Your task to perform on an android device: read, delete, or share a saved page in the chrome app Image 0: 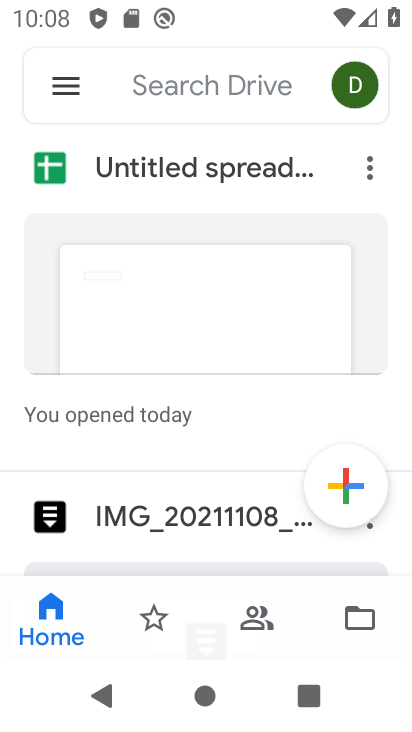
Step 0: press back button
Your task to perform on an android device: read, delete, or share a saved page in the chrome app Image 1: 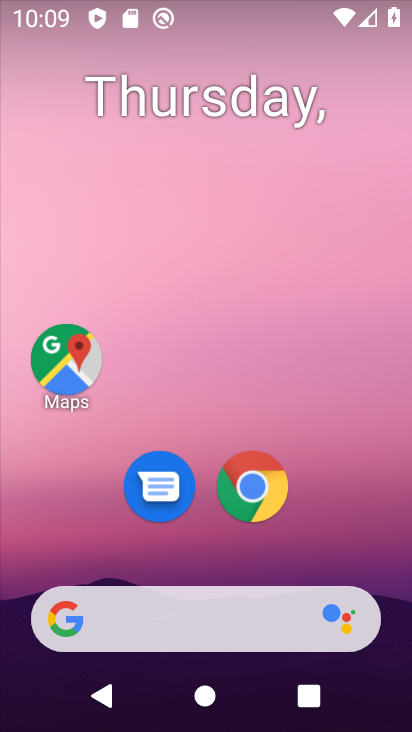
Step 1: click (241, 482)
Your task to perform on an android device: read, delete, or share a saved page in the chrome app Image 2: 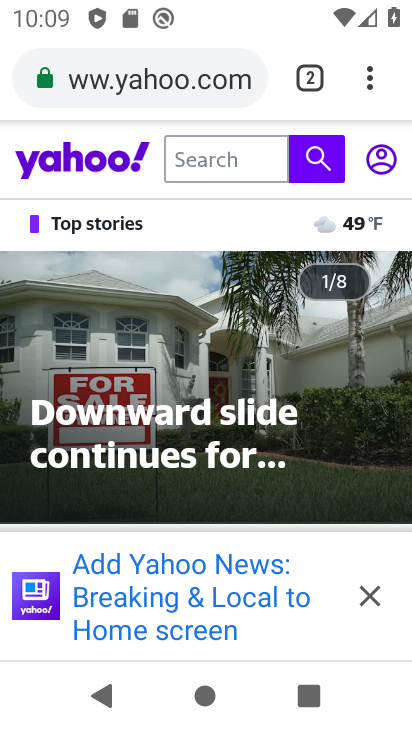
Step 2: drag from (352, 80) to (143, 516)
Your task to perform on an android device: read, delete, or share a saved page in the chrome app Image 3: 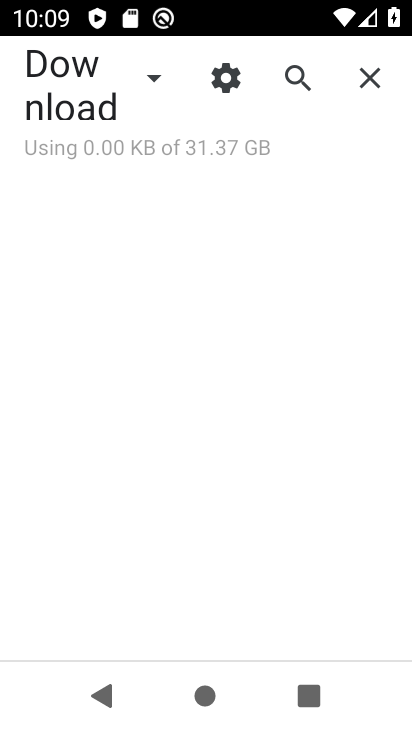
Step 3: click (144, 70)
Your task to perform on an android device: read, delete, or share a saved page in the chrome app Image 4: 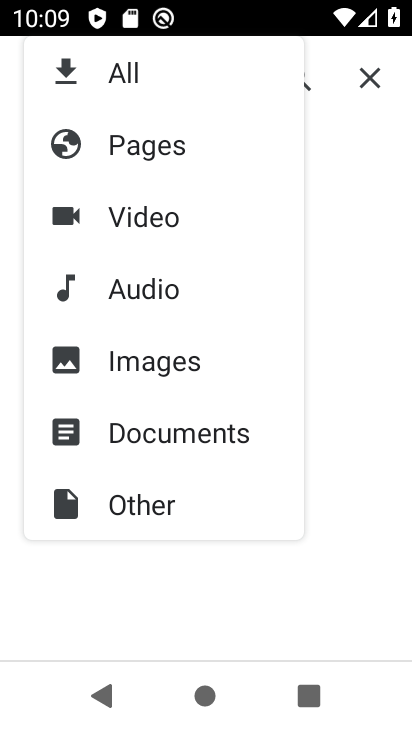
Step 4: click (142, 142)
Your task to perform on an android device: read, delete, or share a saved page in the chrome app Image 5: 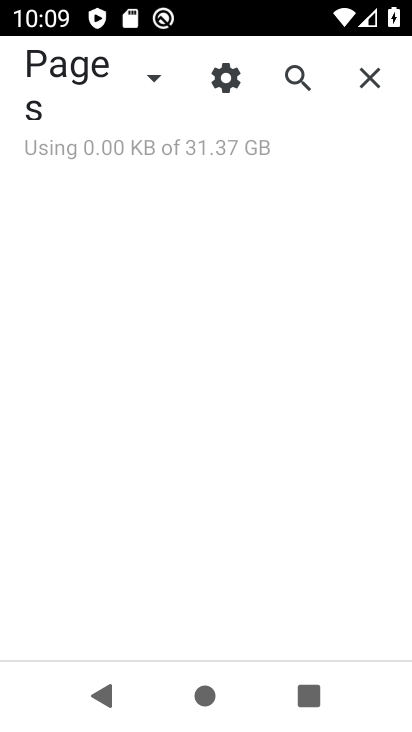
Step 5: task complete